Your task to perform on an android device: turn off notifications settings in the gmail app Image 0: 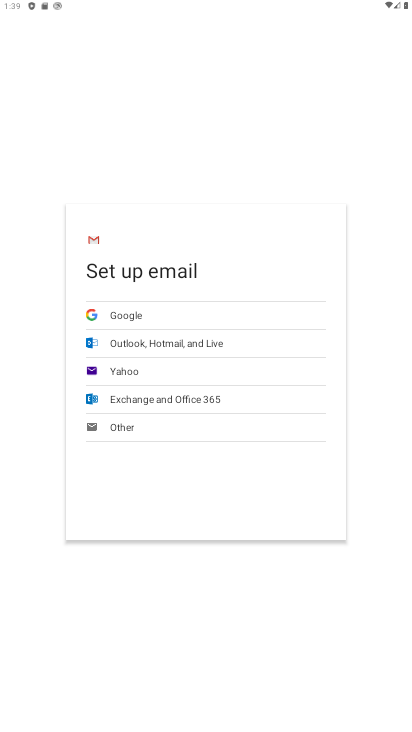
Step 0: press home button
Your task to perform on an android device: turn off notifications settings in the gmail app Image 1: 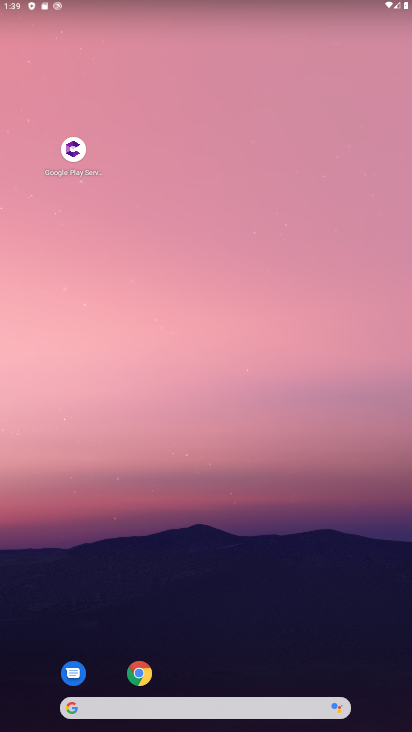
Step 1: drag from (118, 700) to (131, 286)
Your task to perform on an android device: turn off notifications settings in the gmail app Image 2: 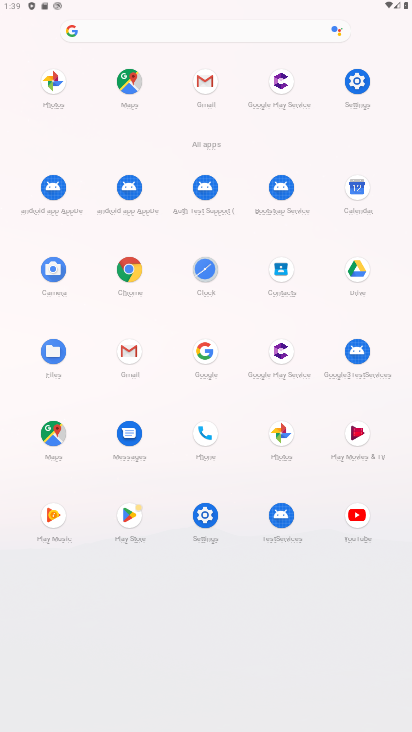
Step 2: click (132, 346)
Your task to perform on an android device: turn off notifications settings in the gmail app Image 3: 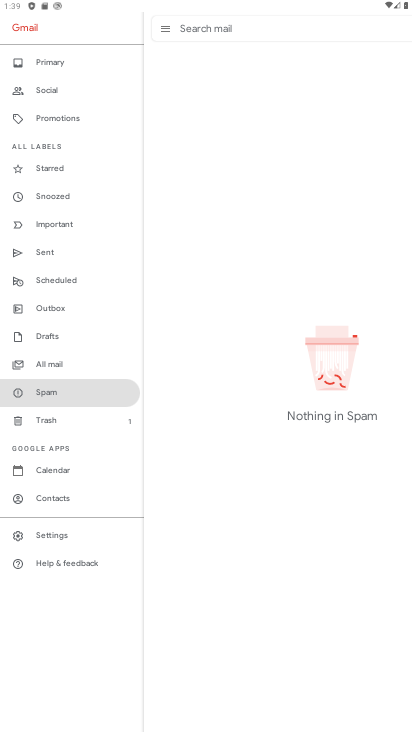
Step 3: click (66, 534)
Your task to perform on an android device: turn off notifications settings in the gmail app Image 4: 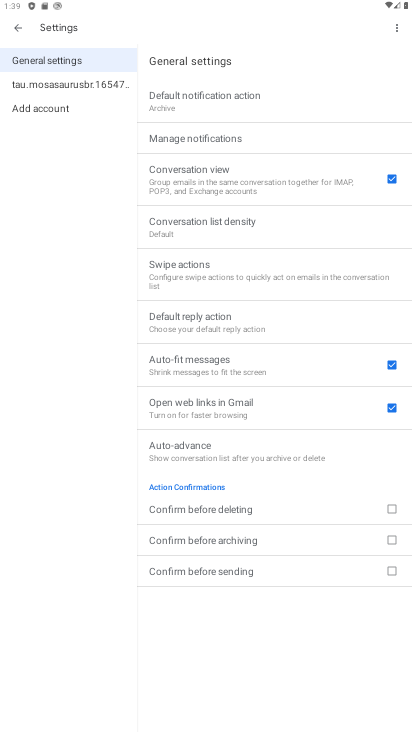
Step 4: click (203, 139)
Your task to perform on an android device: turn off notifications settings in the gmail app Image 5: 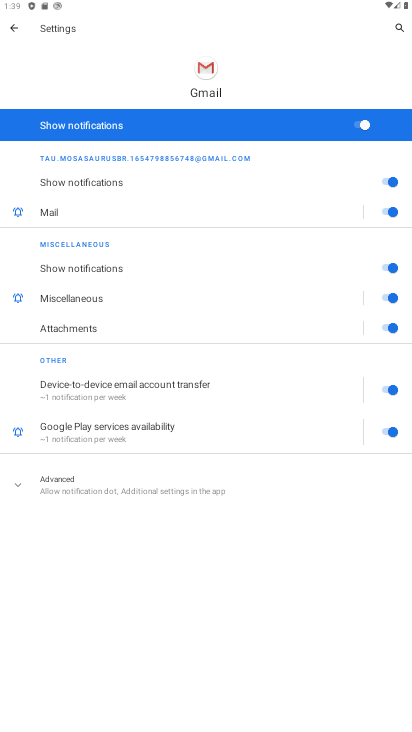
Step 5: click (366, 123)
Your task to perform on an android device: turn off notifications settings in the gmail app Image 6: 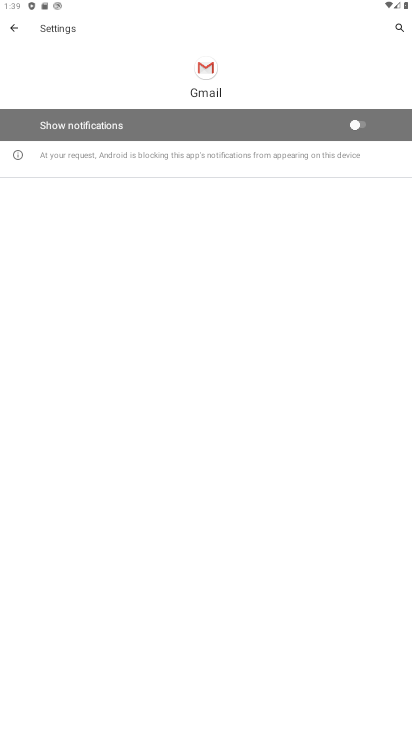
Step 6: task complete